Your task to perform on an android device: Open privacy settings Image 0: 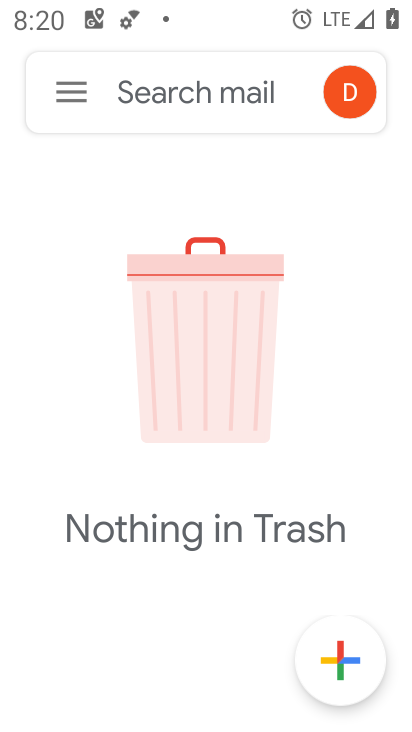
Step 0: press home button
Your task to perform on an android device: Open privacy settings Image 1: 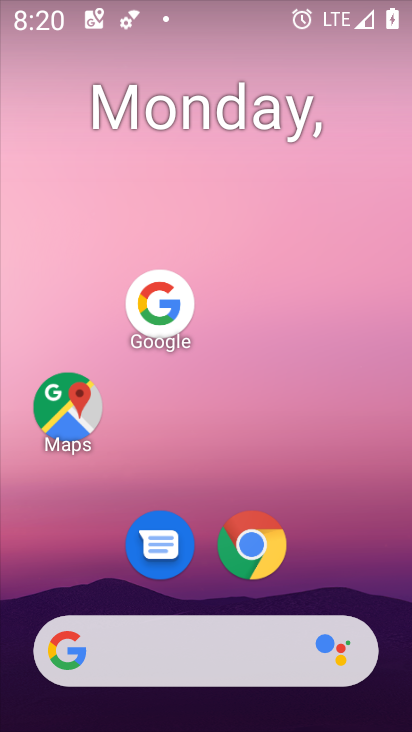
Step 1: drag from (169, 637) to (305, 98)
Your task to perform on an android device: Open privacy settings Image 2: 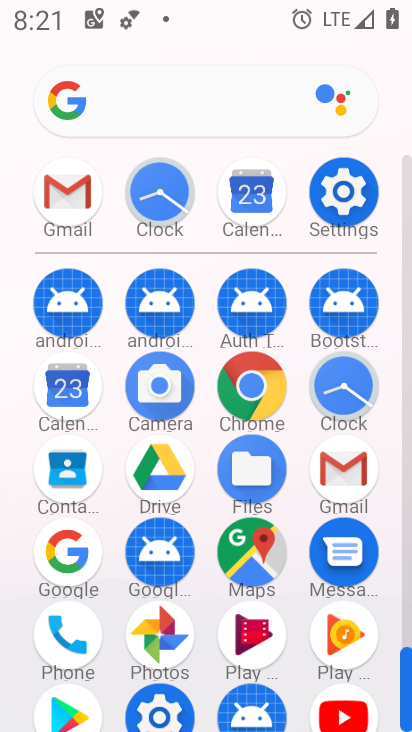
Step 2: click (369, 197)
Your task to perform on an android device: Open privacy settings Image 3: 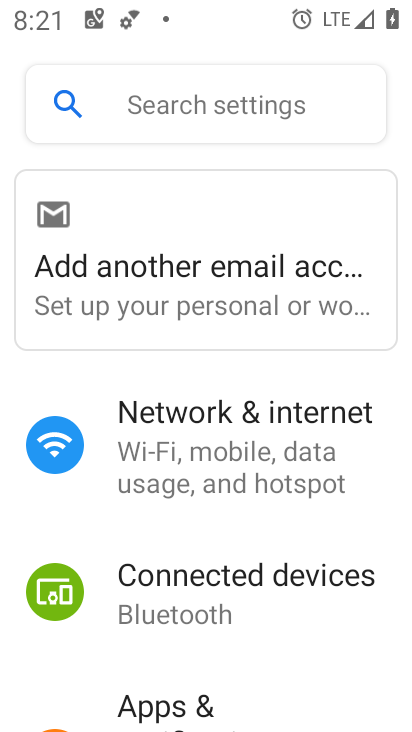
Step 3: drag from (203, 674) to (350, 59)
Your task to perform on an android device: Open privacy settings Image 4: 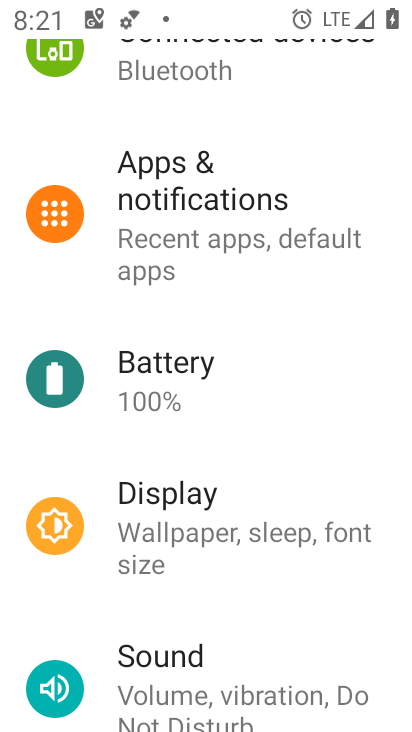
Step 4: drag from (228, 626) to (303, 50)
Your task to perform on an android device: Open privacy settings Image 5: 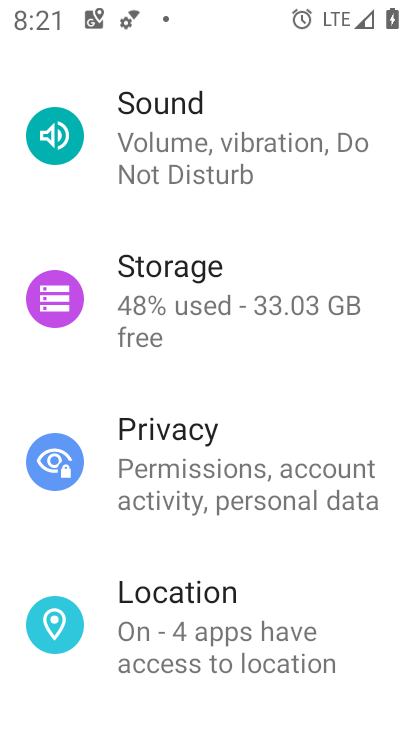
Step 5: click (195, 462)
Your task to perform on an android device: Open privacy settings Image 6: 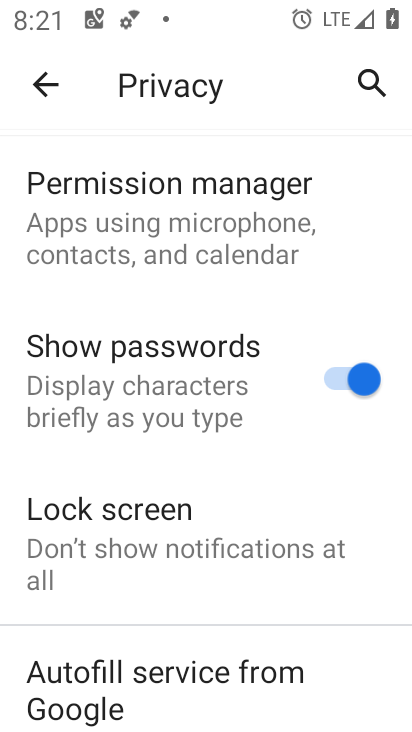
Step 6: task complete